Your task to perform on an android device: Open ESPN.com Image 0: 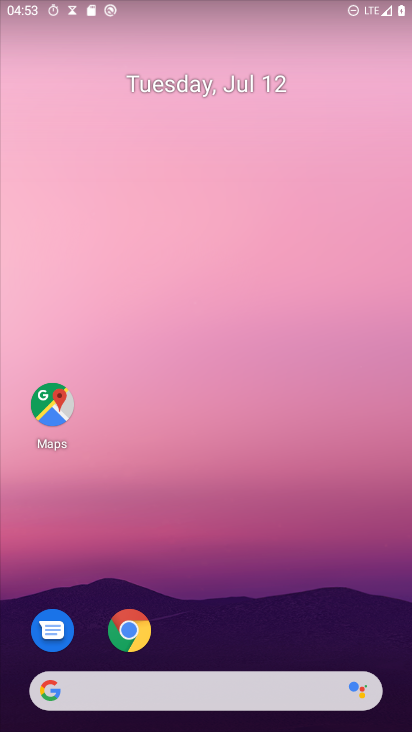
Step 0: drag from (280, 673) to (398, 7)
Your task to perform on an android device: Open ESPN.com Image 1: 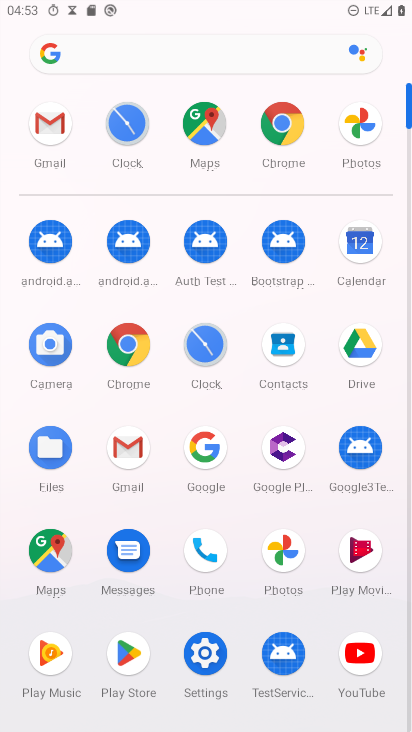
Step 1: click (138, 353)
Your task to perform on an android device: Open ESPN.com Image 2: 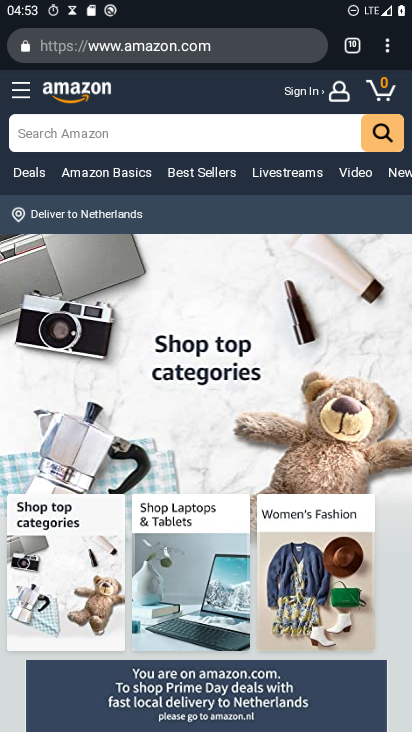
Step 2: click (227, 42)
Your task to perform on an android device: Open ESPN.com Image 3: 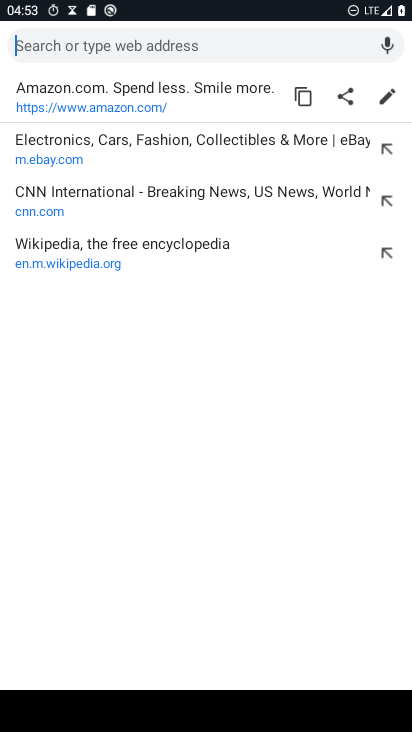
Step 3: type "espn.com"
Your task to perform on an android device: Open ESPN.com Image 4: 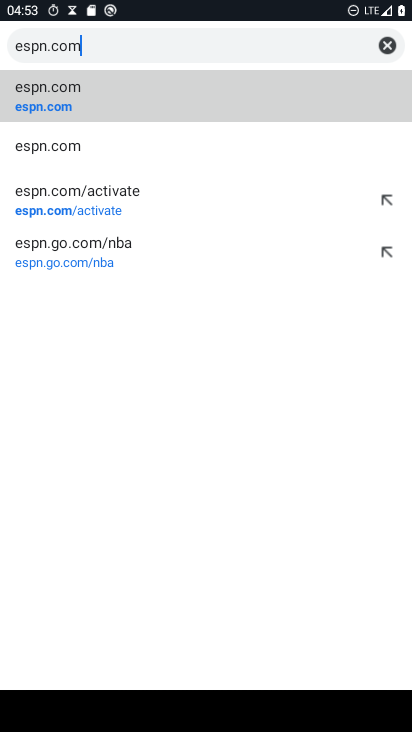
Step 4: click (78, 103)
Your task to perform on an android device: Open ESPN.com Image 5: 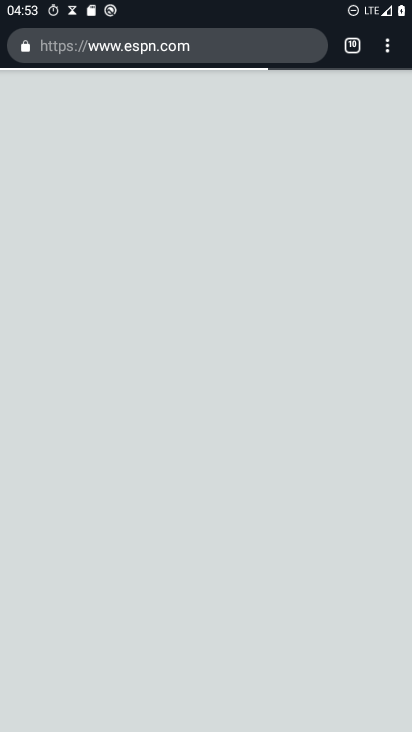
Step 5: task complete